Your task to perform on an android device: What is the news today? Image 0: 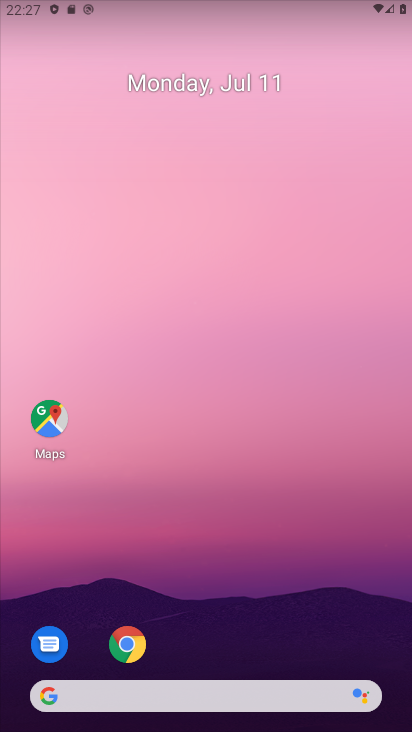
Step 0: press back button
Your task to perform on an android device: What is the news today? Image 1: 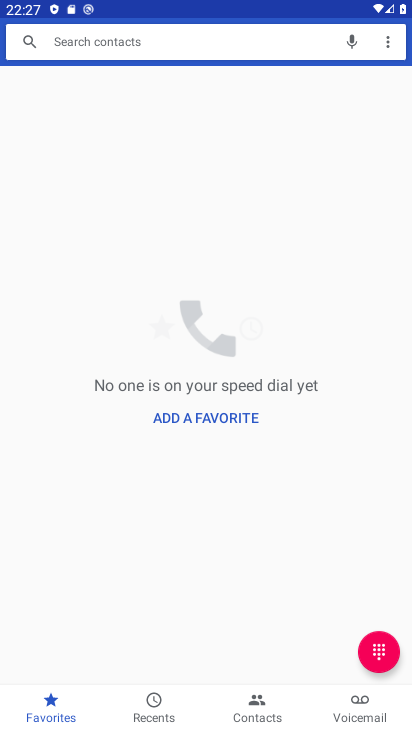
Step 1: press home button
Your task to perform on an android device: What is the news today? Image 2: 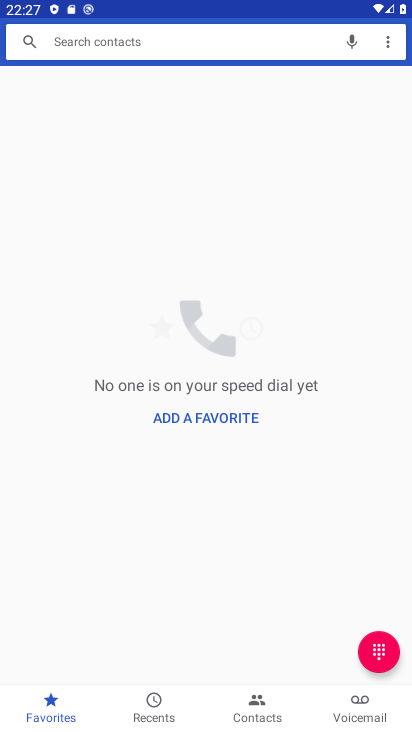
Step 2: click (37, 102)
Your task to perform on an android device: What is the news today? Image 3: 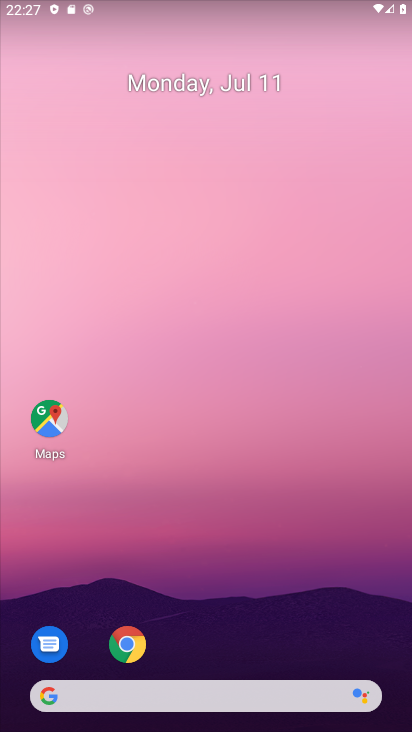
Step 3: drag from (281, 675) to (221, 6)
Your task to perform on an android device: What is the news today? Image 4: 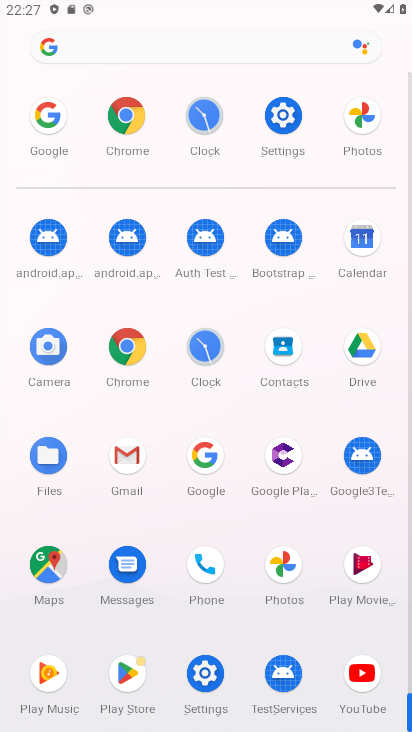
Step 4: click (134, 348)
Your task to perform on an android device: What is the news today? Image 5: 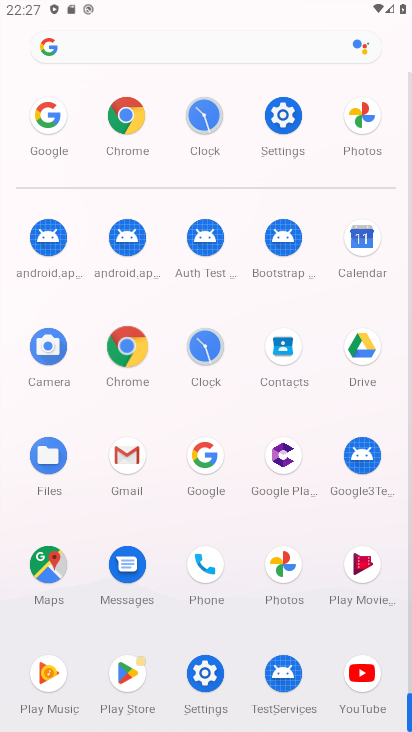
Step 5: click (127, 343)
Your task to perform on an android device: What is the news today? Image 6: 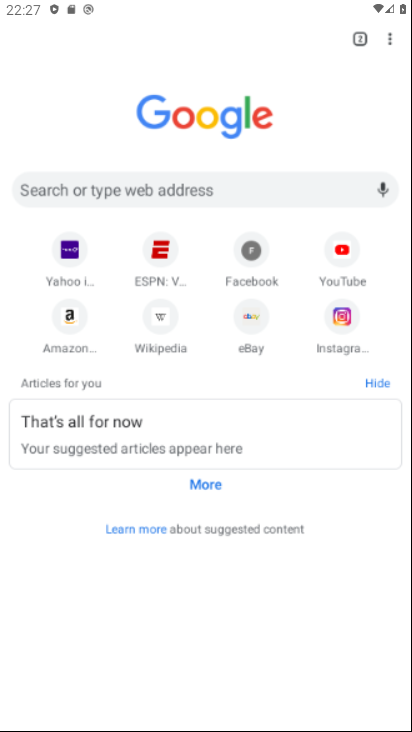
Step 6: click (126, 343)
Your task to perform on an android device: What is the news today? Image 7: 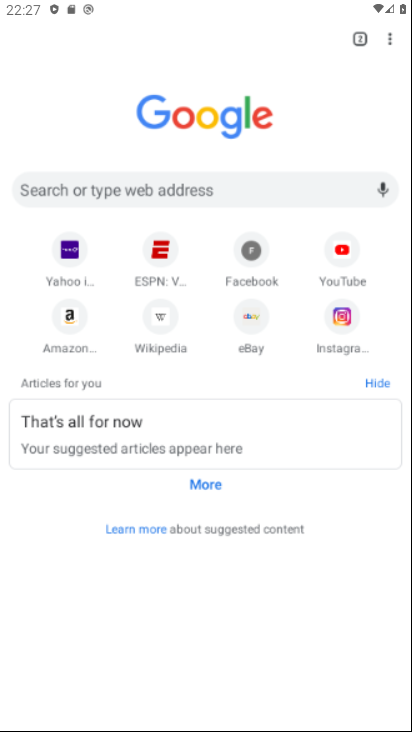
Step 7: click (114, 339)
Your task to perform on an android device: What is the news today? Image 8: 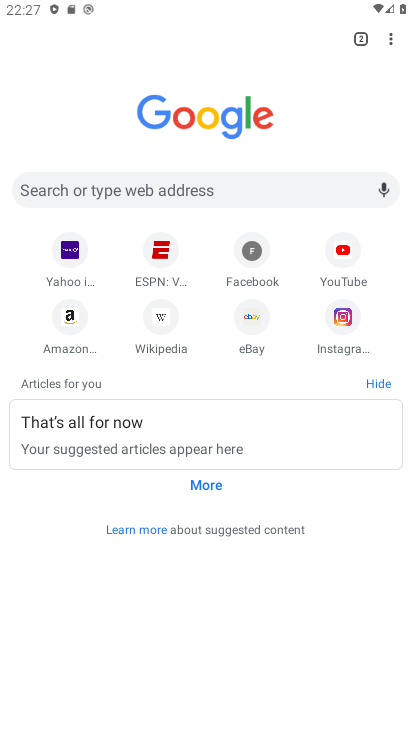
Step 8: click (94, 186)
Your task to perform on an android device: What is the news today? Image 9: 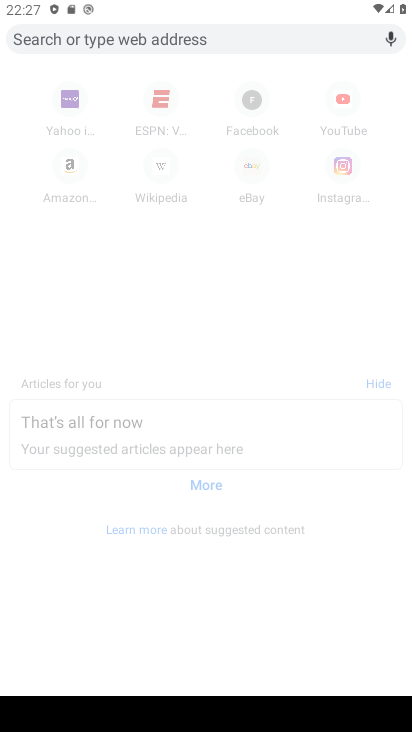
Step 9: type "what is the news today/"
Your task to perform on an android device: What is the news today? Image 10: 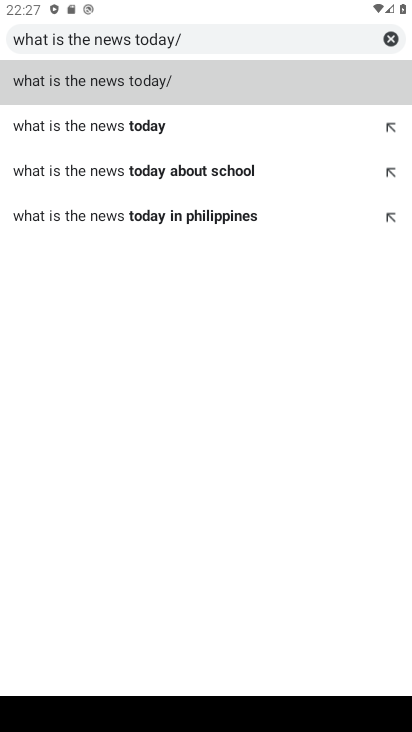
Step 10: click (177, 123)
Your task to perform on an android device: What is the news today? Image 11: 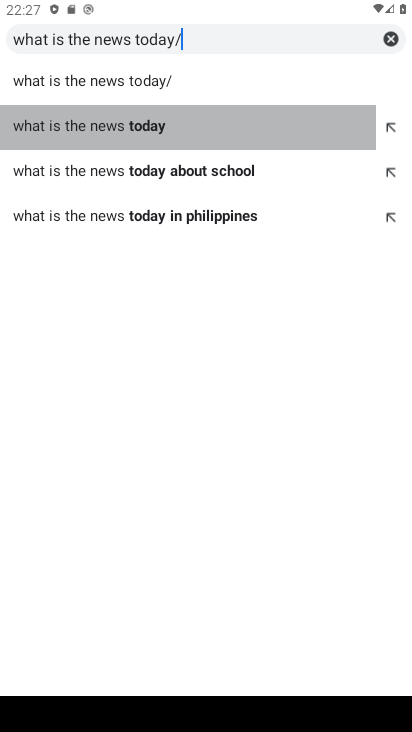
Step 11: click (176, 127)
Your task to perform on an android device: What is the news today? Image 12: 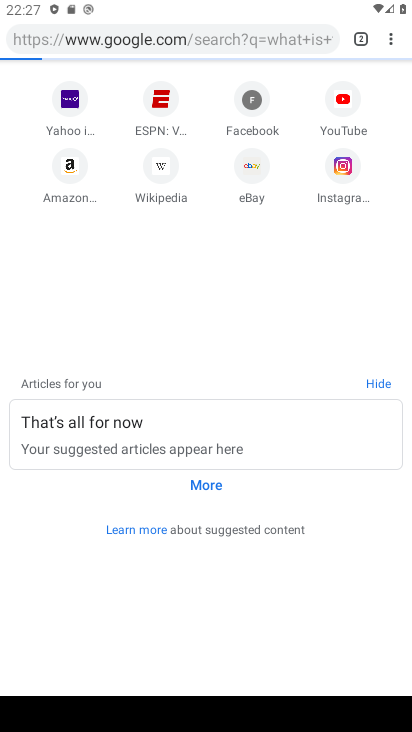
Step 12: click (177, 130)
Your task to perform on an android device: What is the news today? Image 13: 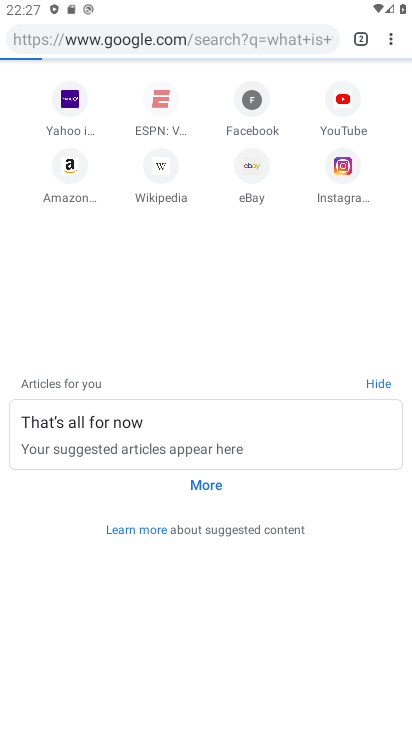
Step 13: click (181, 136)
Your task to perform on an android device: What is the news today? Image 14: 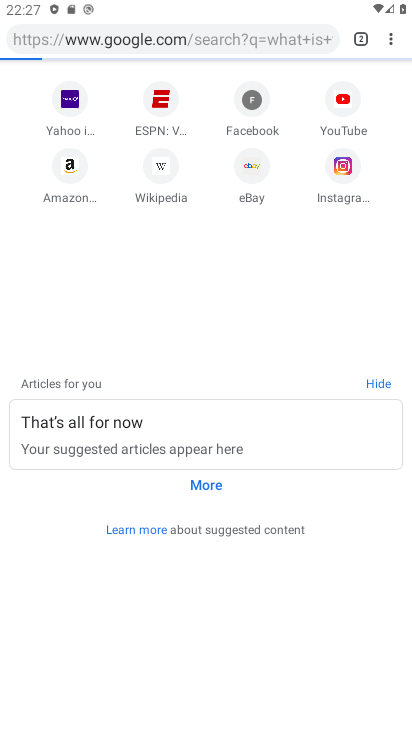
Step 14: click (182, 137)
Your task to perform on an android device: What is the news today? Image 15: 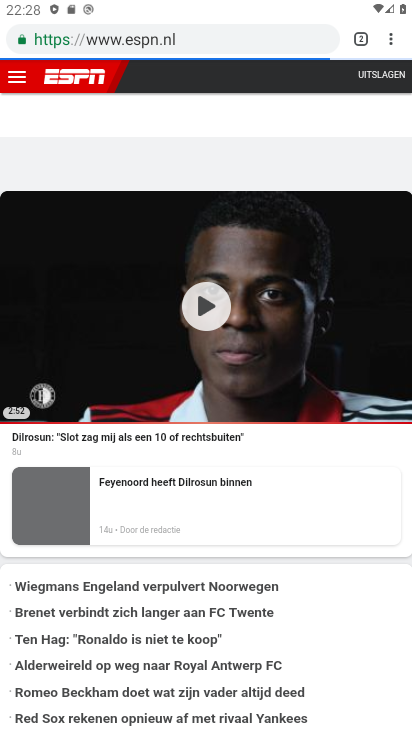
Step 15: task complete